Your task to perform on an android device: change the clock display to analog Image 0: 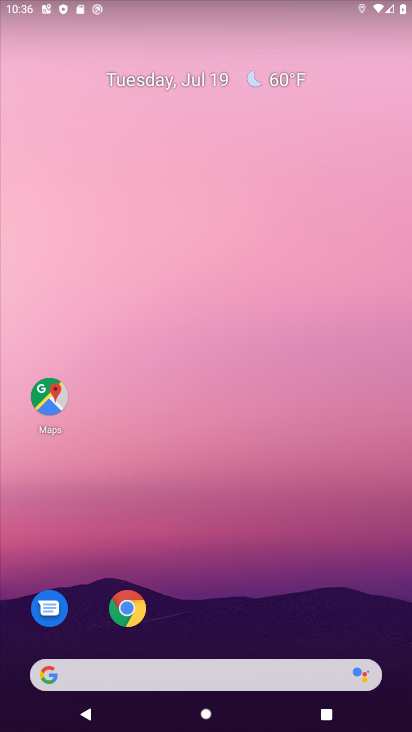
Step 0: drag from (264, 642) to (213, 34)
Your task to perform on an android device: change the clock display to analog Image 1: 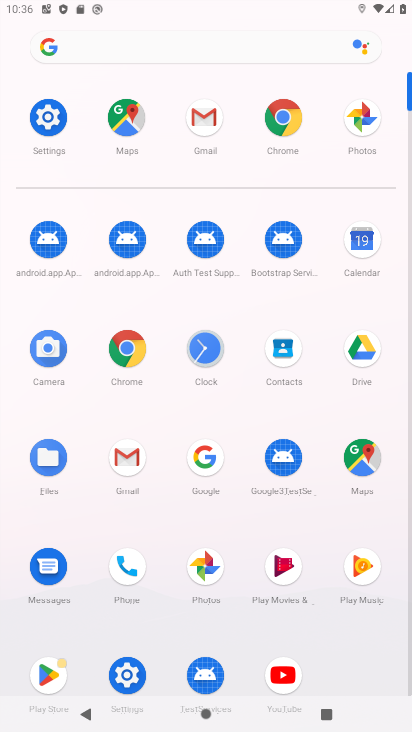
Step 1: click (212, 347)
Your task to perform on an android device: change the clock display to analog Image 2: 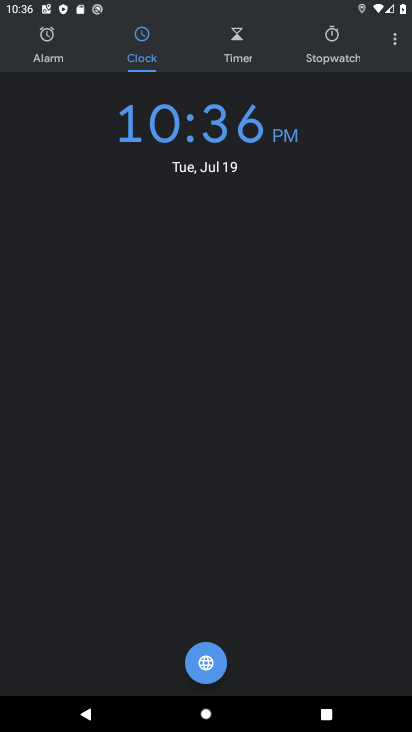
Step 2: click (392, 48)
Your task to perform on an android device: change the clock display to analog Image 3: 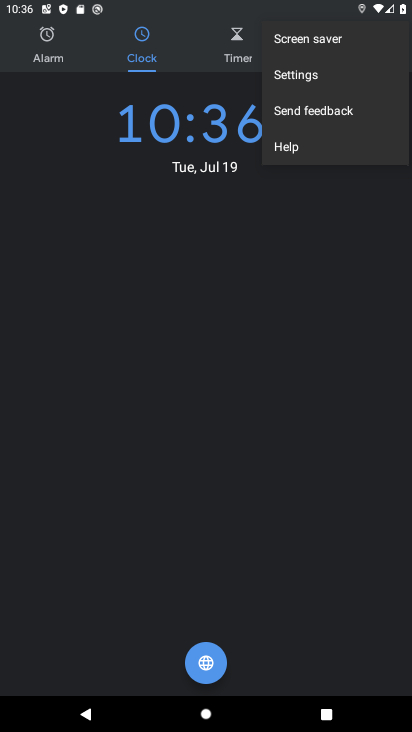
Step 3: click (302, 84)
Your task to perform on an android device: change the clock display to analog Image 4: 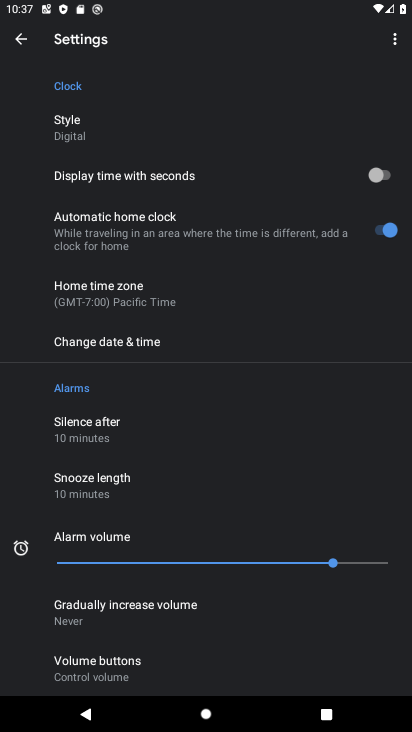
Step 4: click (75, 114)
Your task to perform on an android device: change the clock display to analog Image 5: 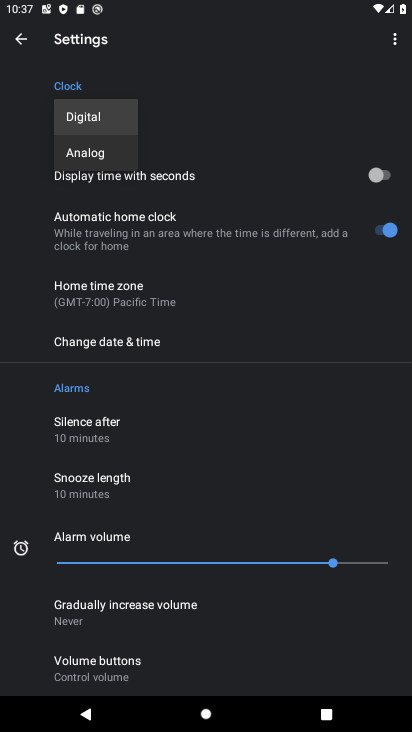
Step 5: click (83, 151)
Your task to perform on an android device: change the clock display to analog Image 6: 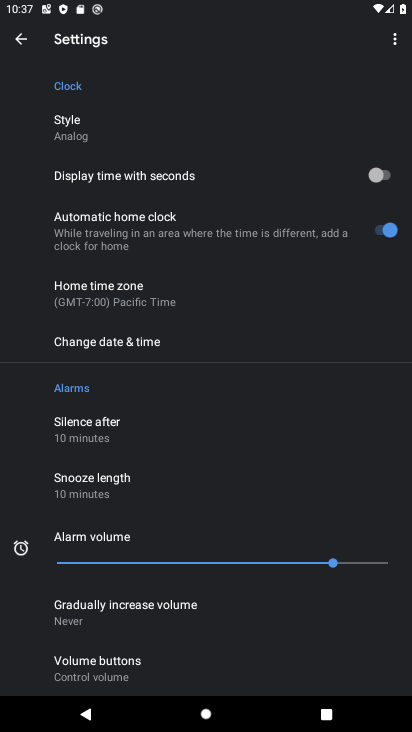
Step 6: task complete